Your task to perform on an android device: Open the map Image 0: 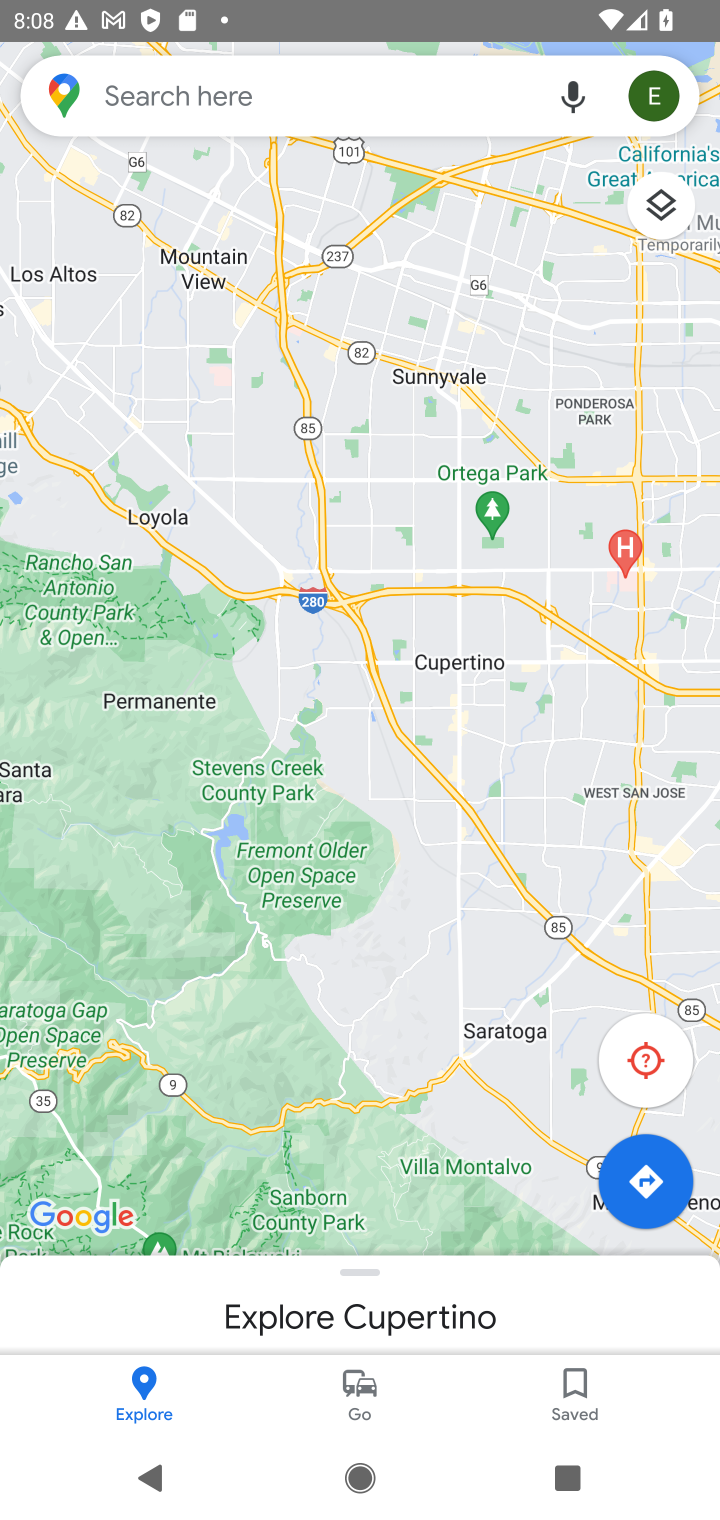
Step 0: drag from (500, 847) to (155, 431)
Your task to perform on an android device: Open the map Image 1: 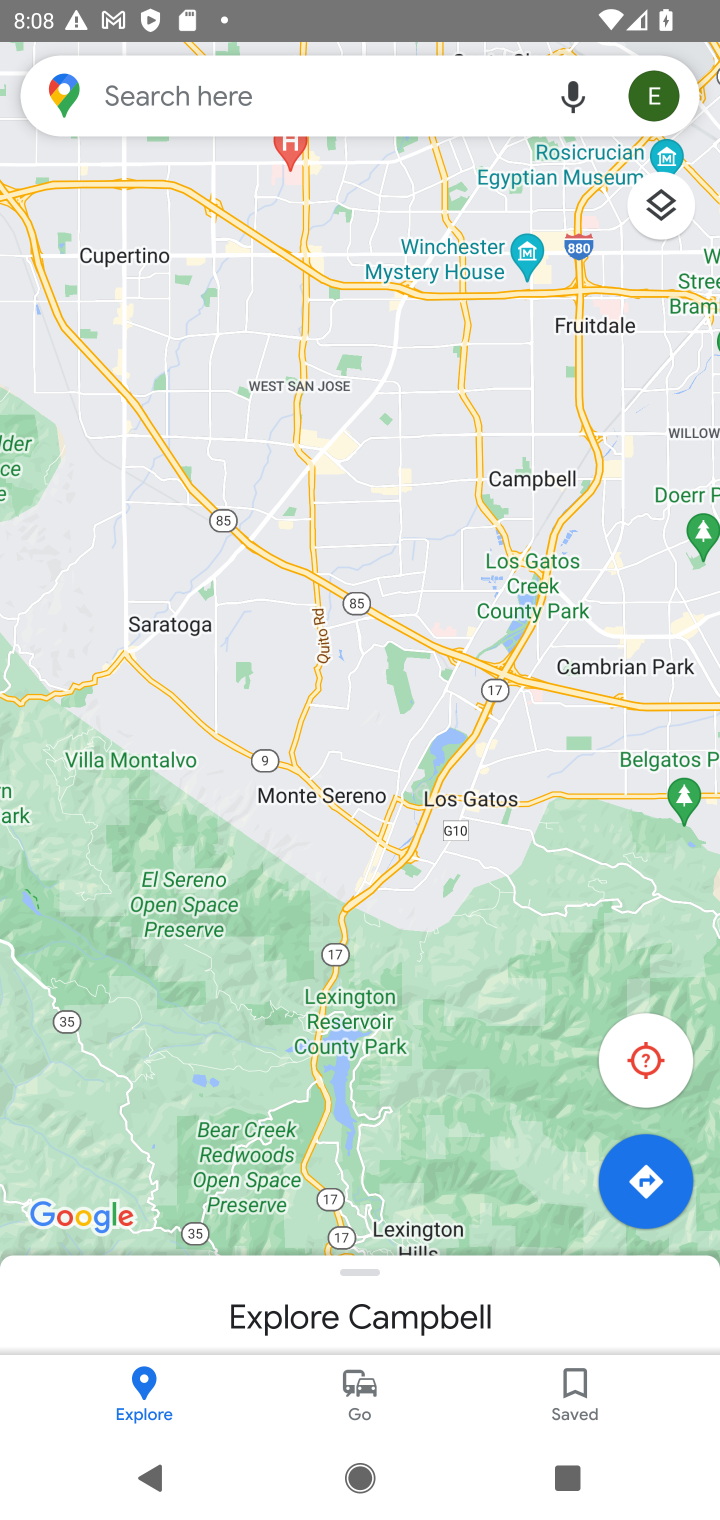
Step 1: task complete